Your task to perform on an android device: toggle notifications settings in the gmail app Image 0: 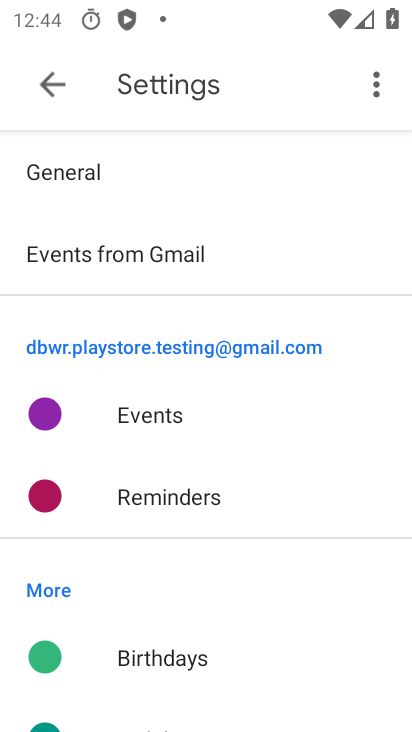
Step 0: press home button
Your task to perform on an android device: toggle notifications settings in the gmail app Image 1: 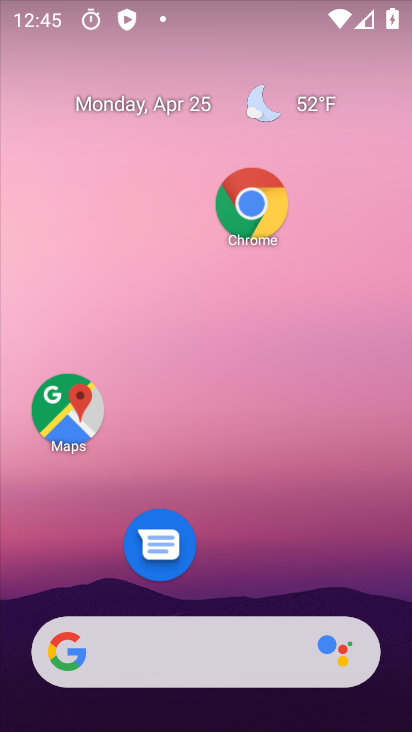
Step 1: drag from (231, 705) to (368, 272)
Your task to perform on an android device: toggle notifications settings in the gmail app Image 2: 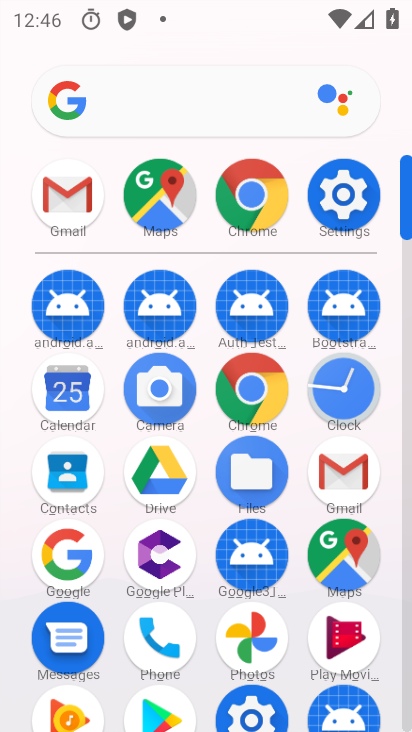
Step 2: click (336, 469)
Your task to perform on an android device: toggle notifications settings in the gmail app Image 3: 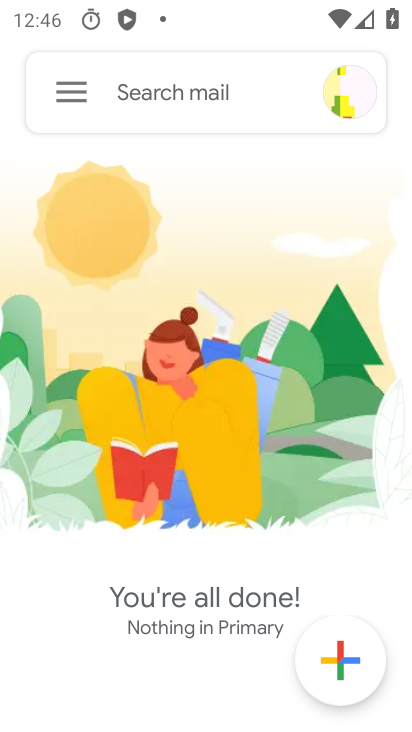
Step 3: click (76, 112)
Your task to perform on an android device: toggle notifications settings in the gmail app Image 4: 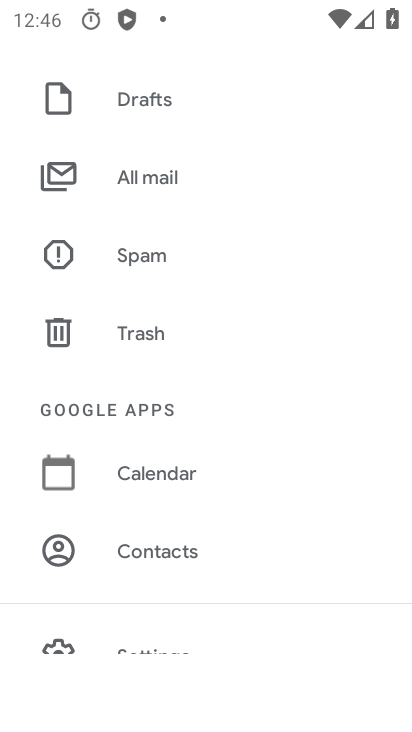
Step 4: click (123, 652)
Your task to perform on an android device: toggle notifications settings in the gmail app Image 5: 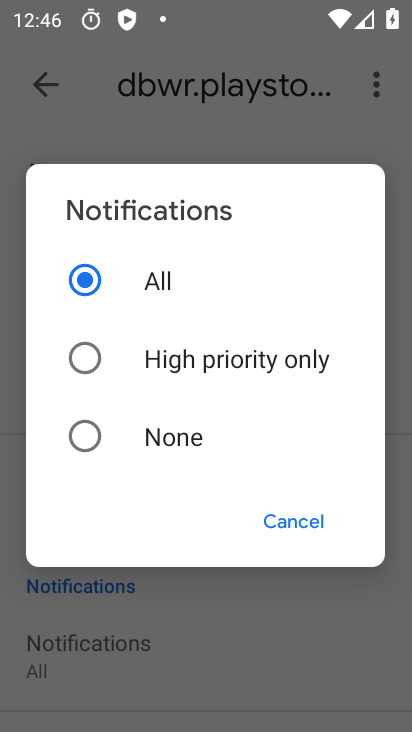
Step 5: task complete